Your task to perform on an android device: visit the assistant section in the google photos Image 0: 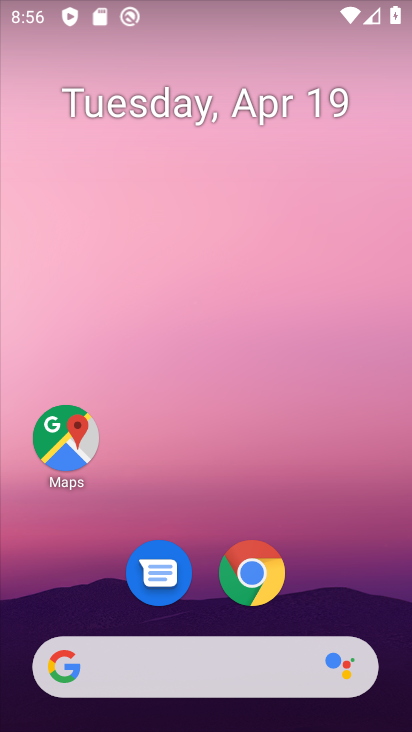
Step 0: drag from (213, 481) to (201, 25)
Your task to perform on an android device: visit the assistant section in the google photos Image 1: 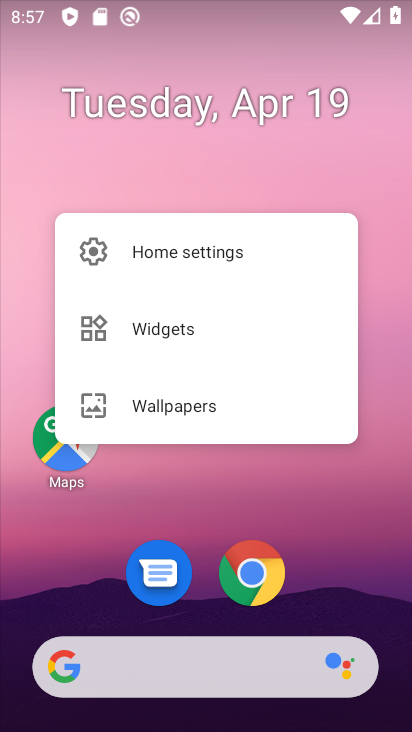
Step 1: click (180, 496)
Your task to perform on an android device: visit the assistant section in the google photos Image 2: 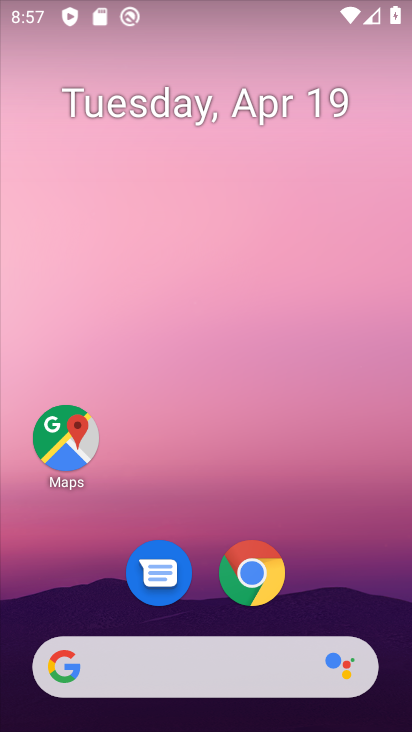
Step 2: drag from (180, 496) to (197, 90)
Your task to perform on an android device: visit the assistant section in the google photos Image 3: 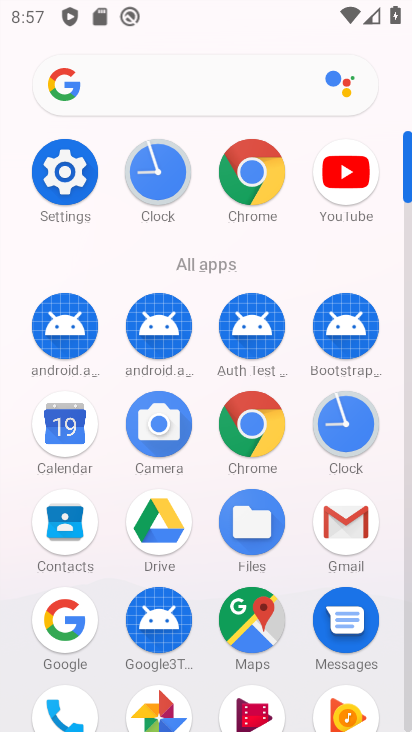
Step 3: click (154, 716)
Your task to perform on an android device: visit the assistant section in the google photos Image 4: 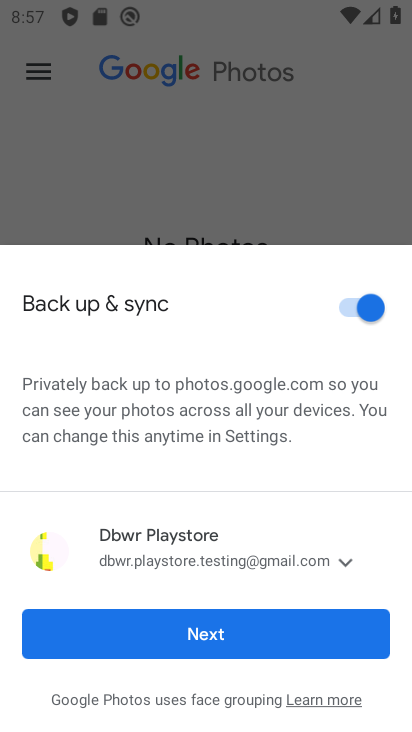
Step 4: click (207, 629)
Your task to perform on an android device: visit the assistant section in the google photos Image 5: 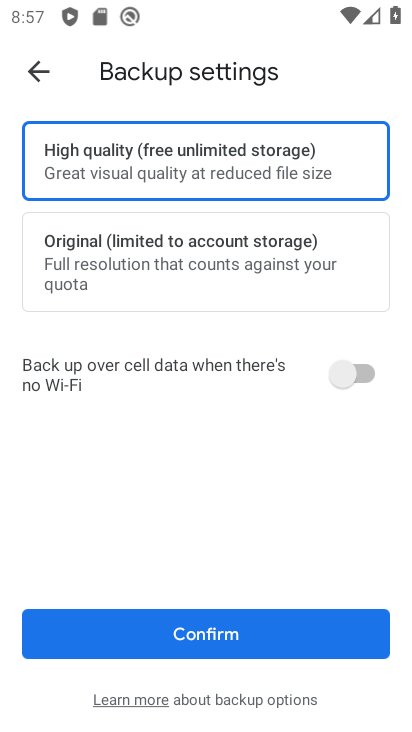
Step 5: click (207, 629)
Your task to perform on an android device: visit the assistant section in the google photos Image 6: 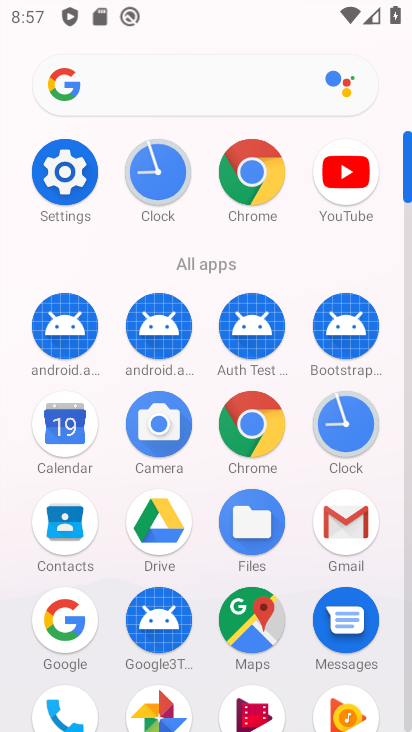
Step 6: click (158, 696)
Your task to perform on an android device: visit the assistant section in the google photos Image 7: 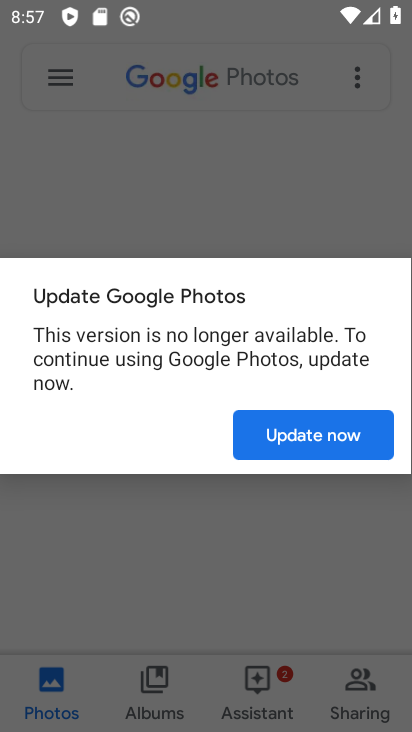
Step 7: click (320, 427)
Your task to perform on an android device: visit the assistant section in the google photos Image 8: 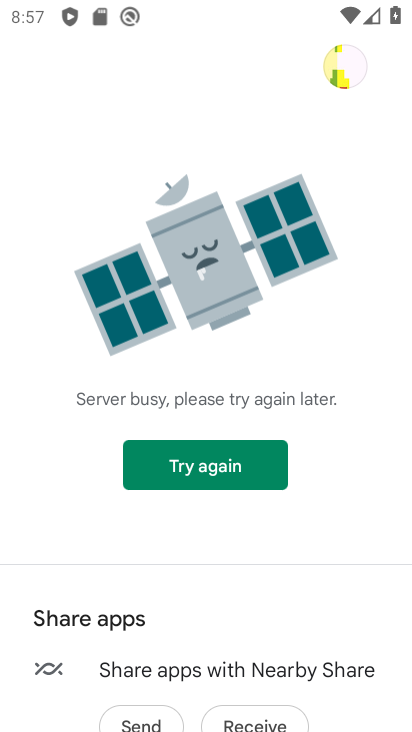
Step 8: click (211, 474)
Your task to perform on an android device: visit the assistant section in the google photos Image 9: 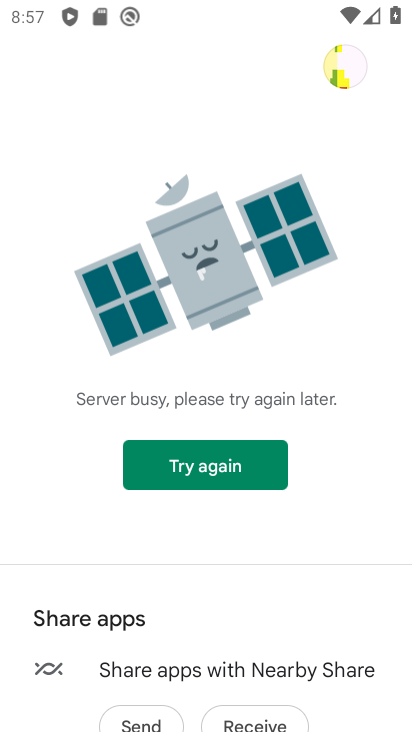
Step 9: press back button
Your task to perform on an android device: visit the assistant section in the google photos Image 10: 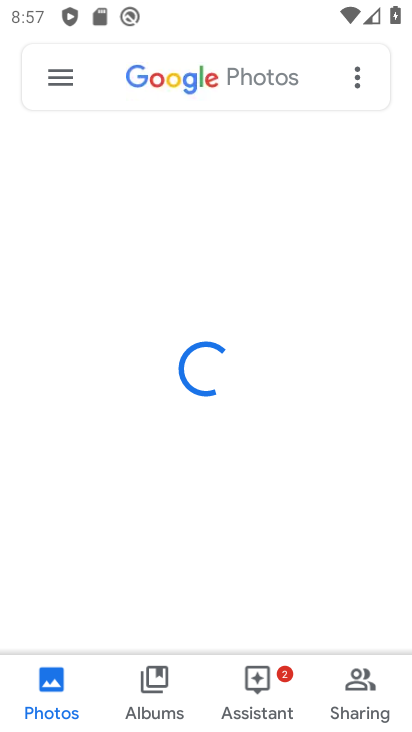
Step 10: click (268, 675)
Your task to perform on an android device: visit the assistant section in the google photos Image 11: 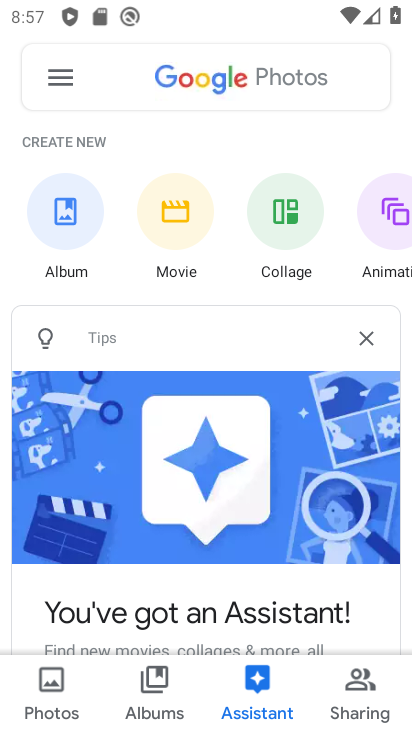
Step 11: task complete